Your task to perform on an android device: Go to privacy settings Image 0: 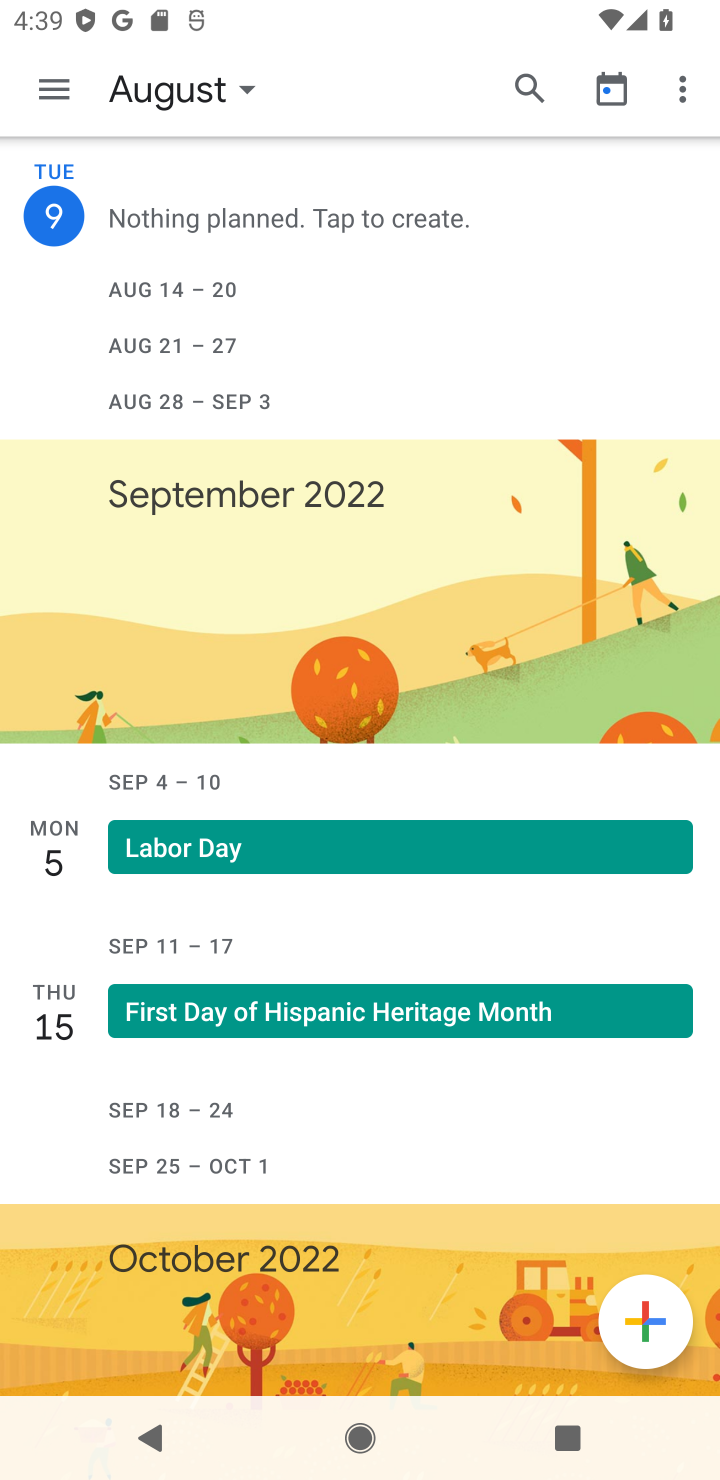
Step 0: press home button
Your task to perform on an android device: Go to privacy settings Image 1: 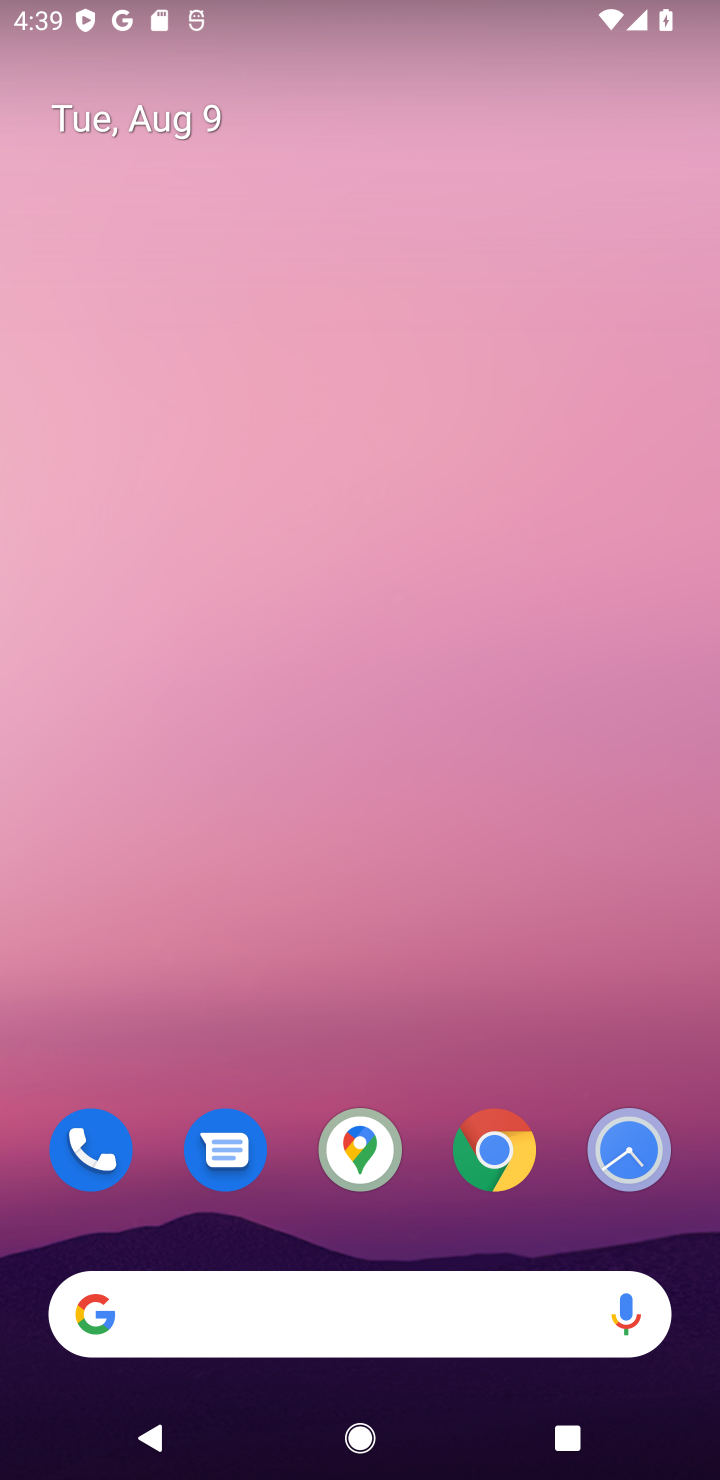
Step 1: drag from (418, 1244) to (346, 20)
Your task to perform on an android device: Go to privacy settings Image 2: 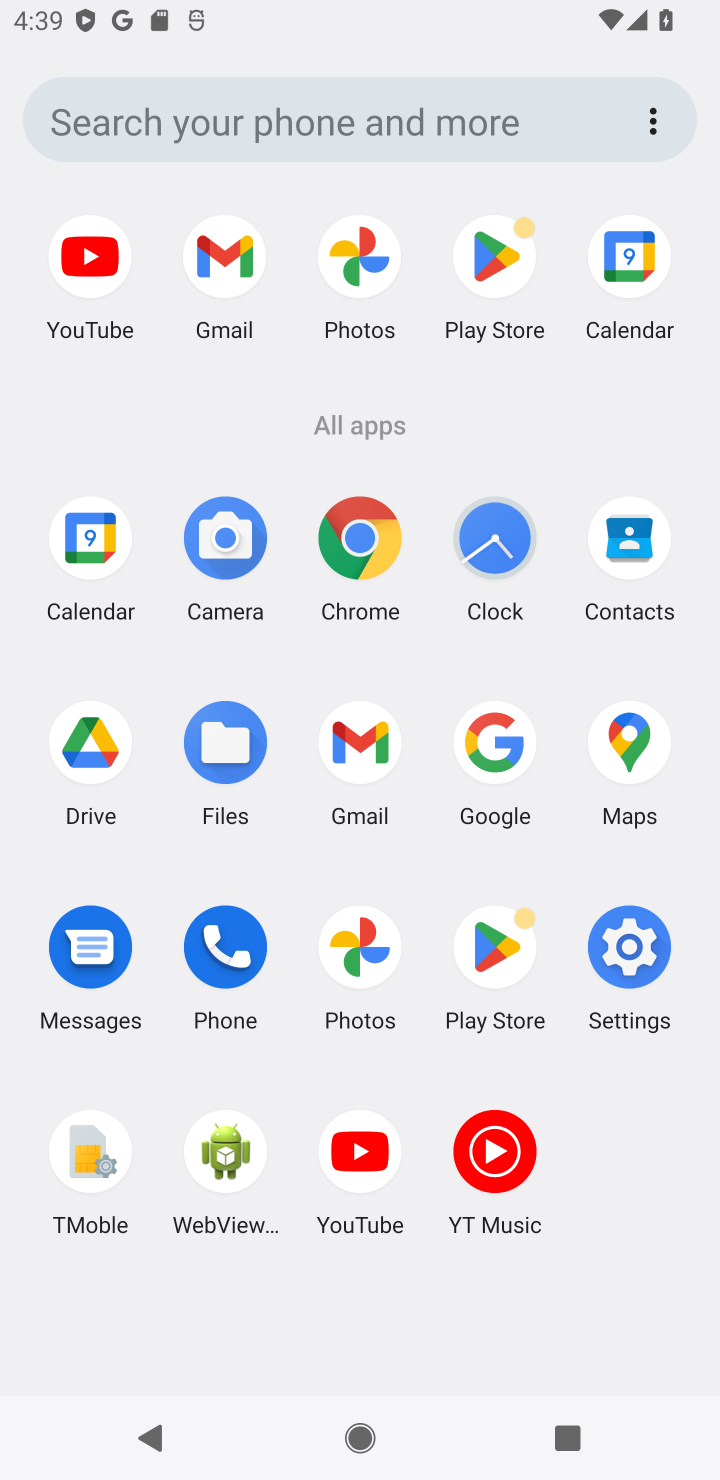
Step 2: click (598, 931)
Your task to perform on an android device: Go to privacy settings Image 3: 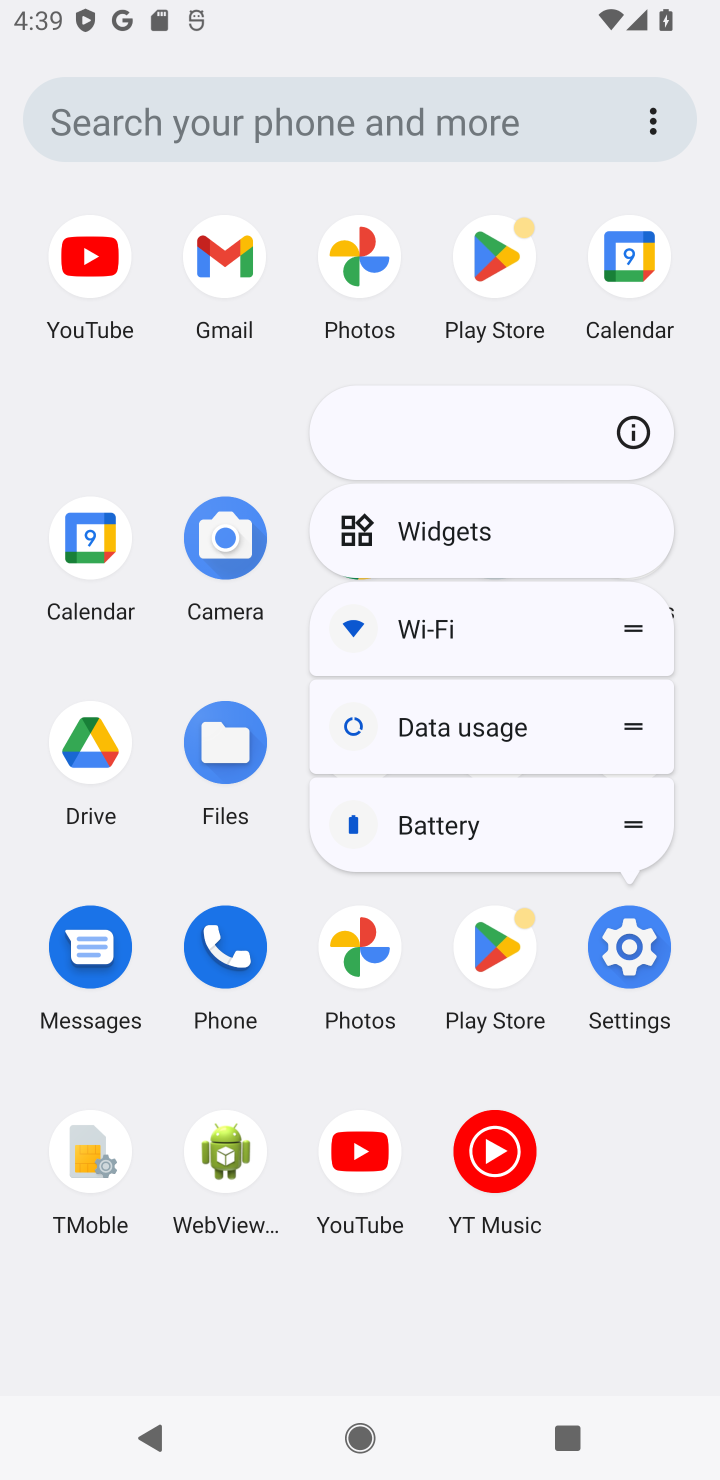
Step 3: click (648, 993)
Your task to perform on an android device: Go to privacy settings Image 4: 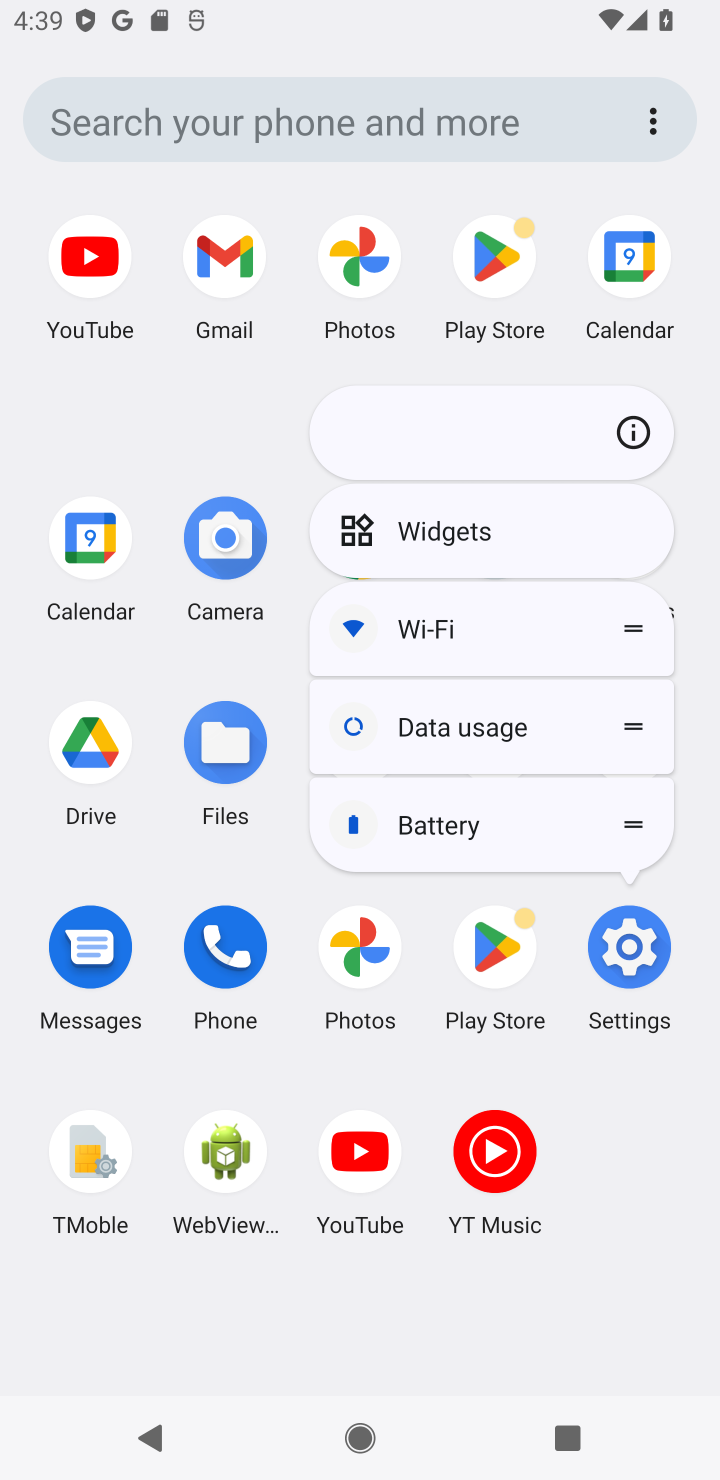
Step 4: click (637, 1004)
Your task to perform on an android device: Go to privacy settings Image 5: 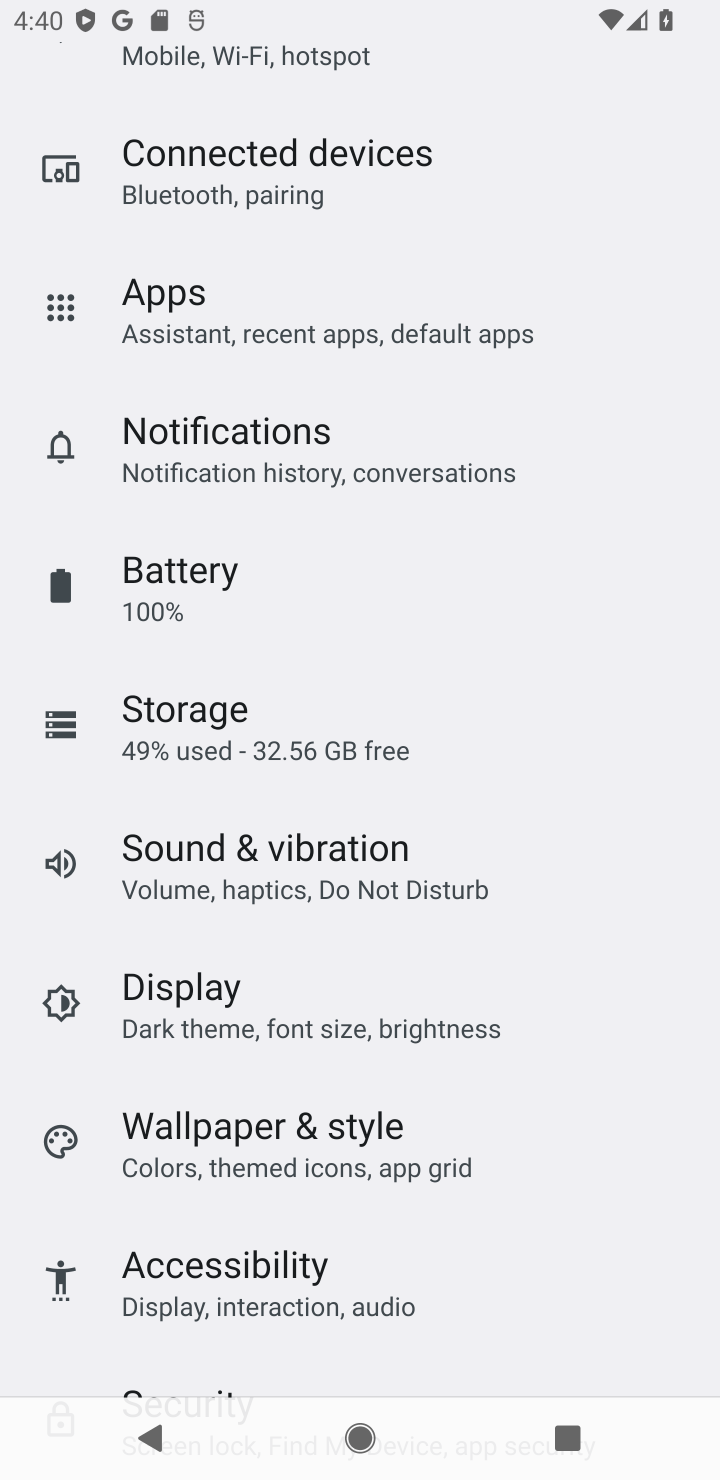
Step 5: drag from (225, 990) to (151, 215)
Your task to perform on an android device: Go to privacy settings Image 6: 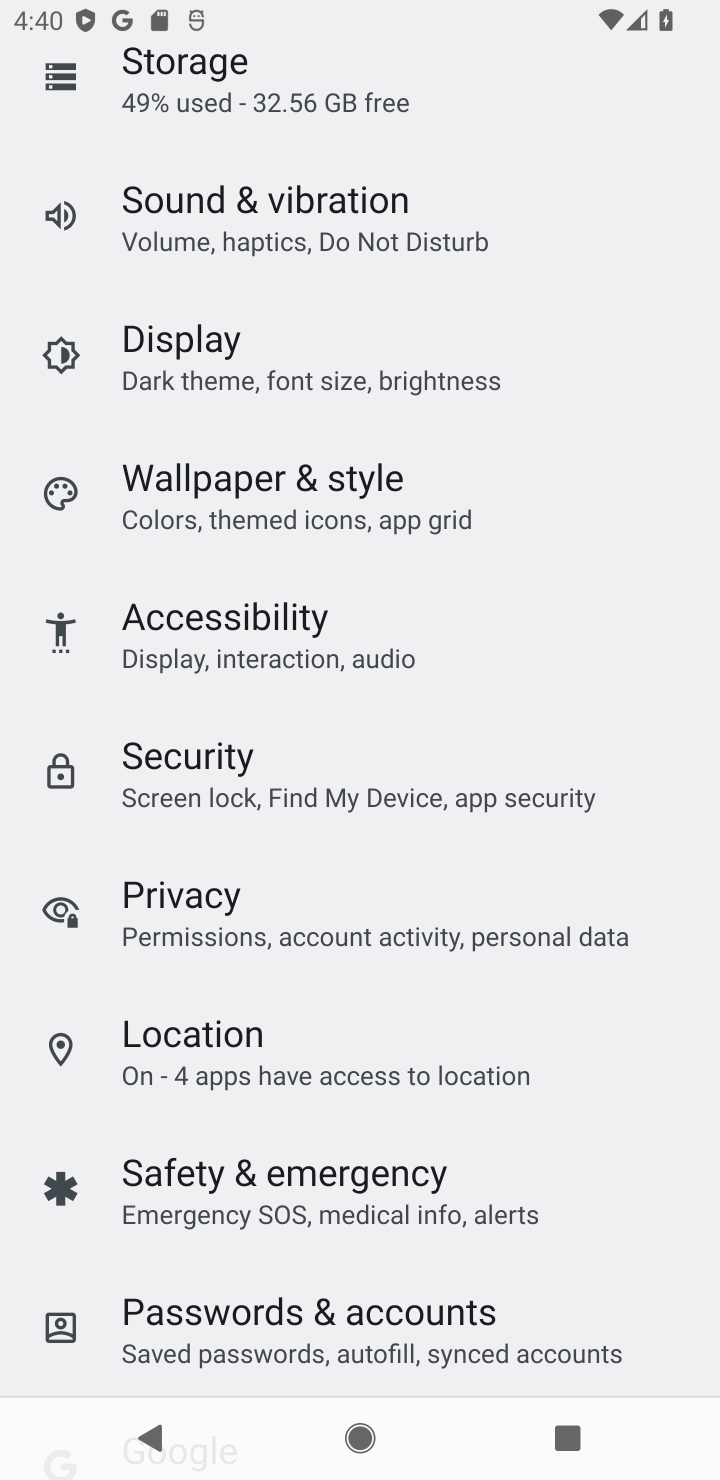
Step 6: click (200, 885)
Your task to perform on an android device: Go to privacy settings Image 7: 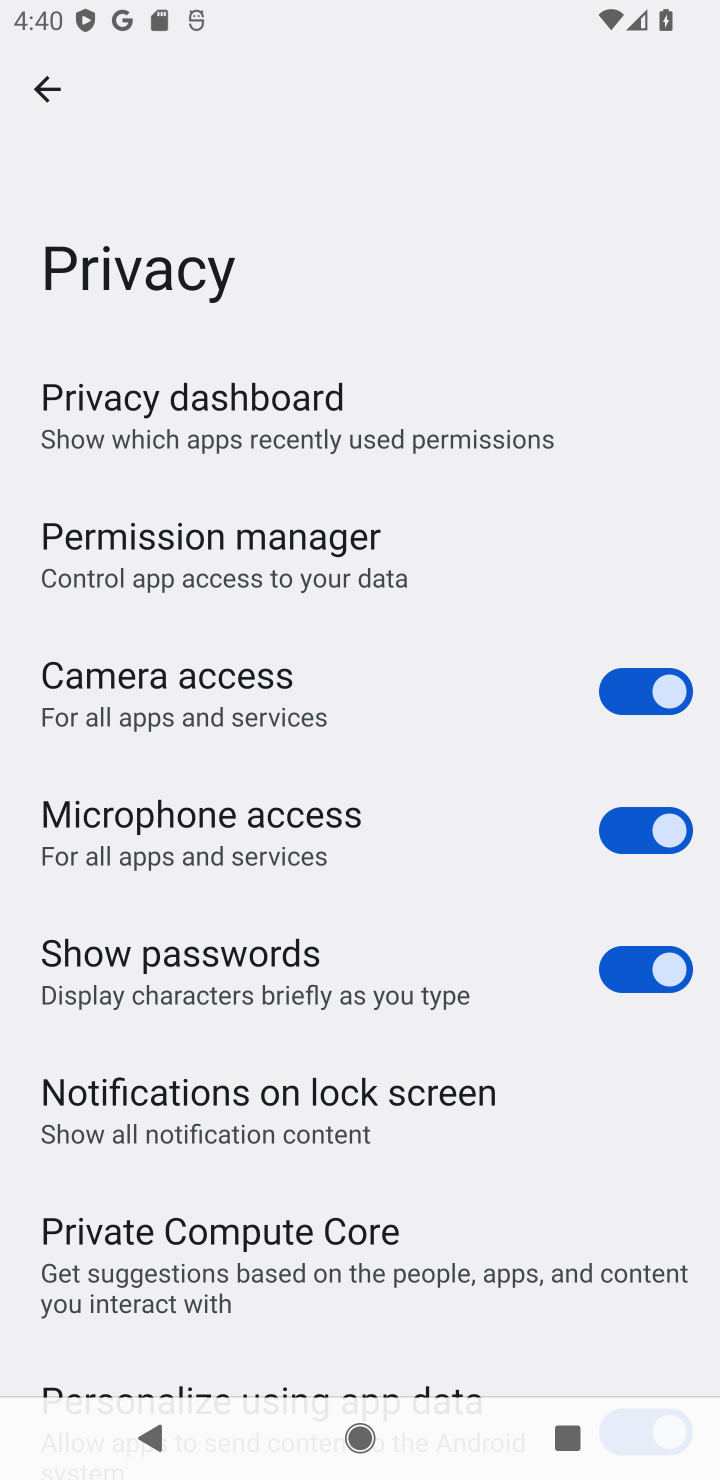
Step 7: task complete